Your task to perform on an android device: toggle data saver in the chrome app Image 0: 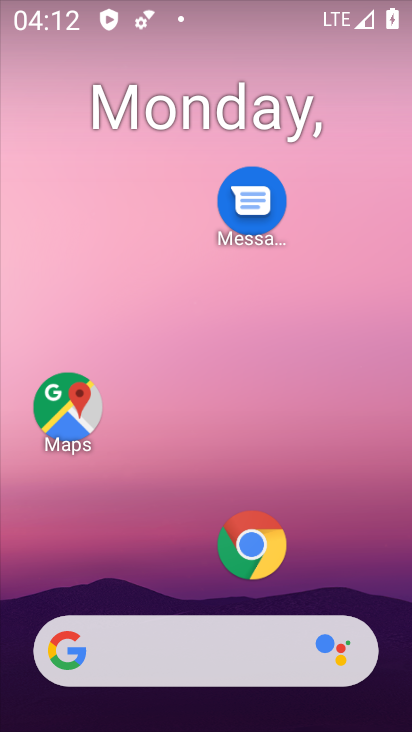
Step 0: drag from (162, 459) to (198, 82)
Your task to perform on an android device: toggle data saver in the chrome app Image 1: 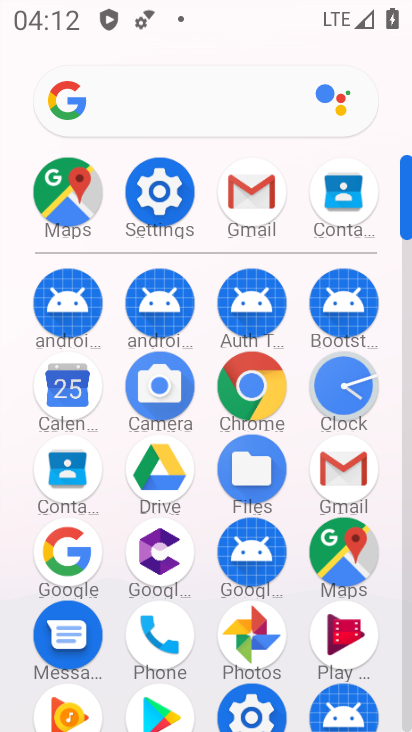
Step 1: click (261, 379)
Your task to perform on an android device: toggle data saver in the chrome app Image 2: 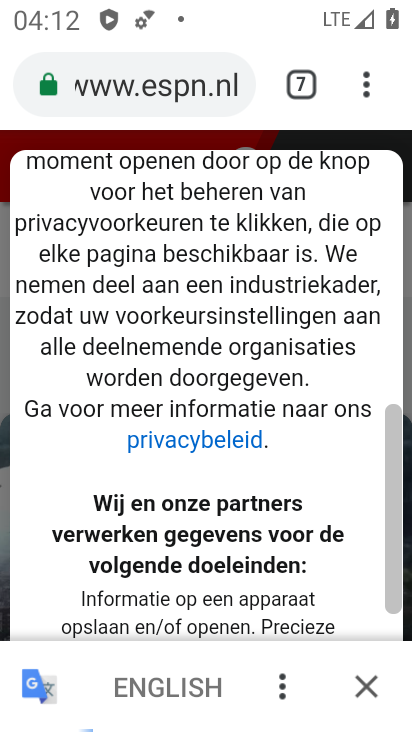
Step 2: drag from (362, 77) to (165, 578)
Your task to perform on an android device: toggle data saver in the chrome app Image 3: 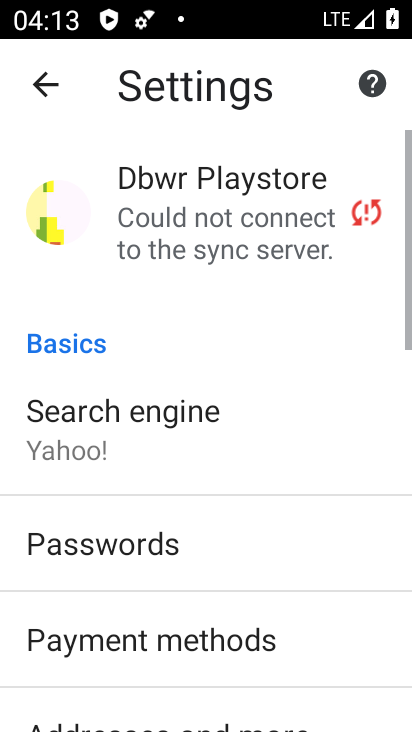
Step 3: drag from (151, 682) to (226, 151)
Your task to perform on an android device: toggle data saver in the chrome app Image 4: 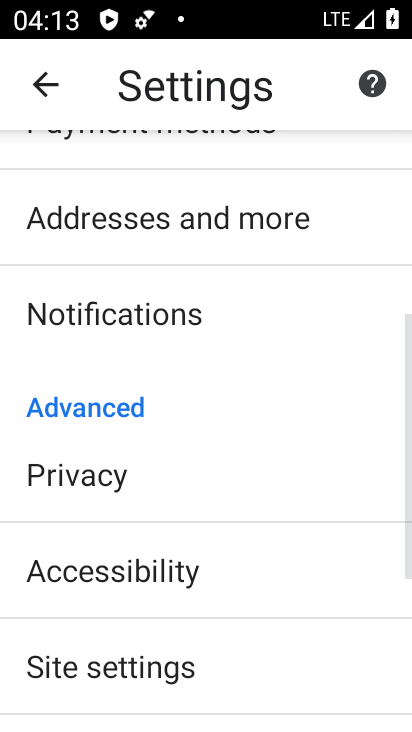
Step 4: drag from (136, 639) to (201, 243)
Your task to perform on an android device: toggle data saver in the chrome app Image 5: 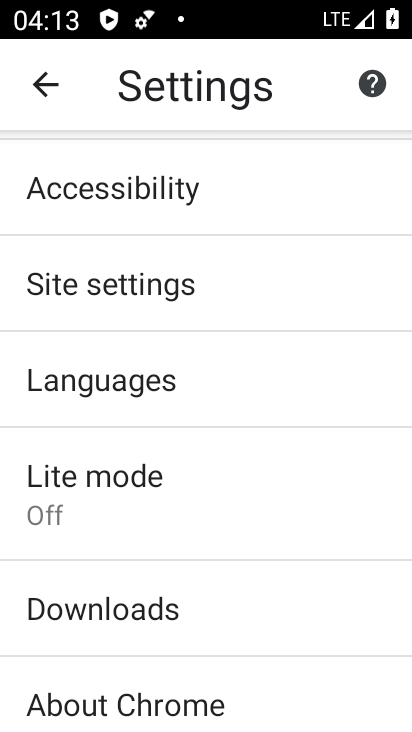
Step 5: click (103, 495)
Your task to perform on an android device: toggle data saver in the chrome app Image 6: 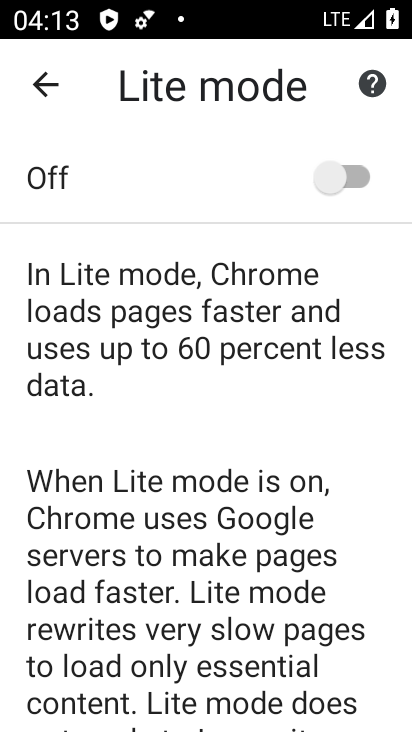
Step 6: click (335, 170)
Your task to perform on an android device: toggle data saver in the chrome app Image 7: 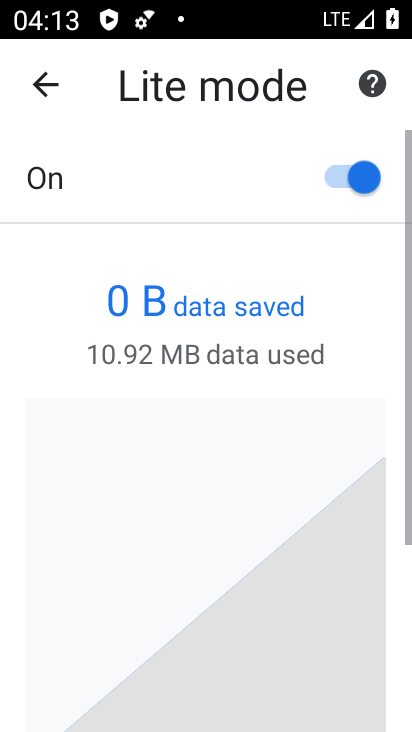
Step 7: task complete